Your task to perform on an android device: toggle location history Image 0: 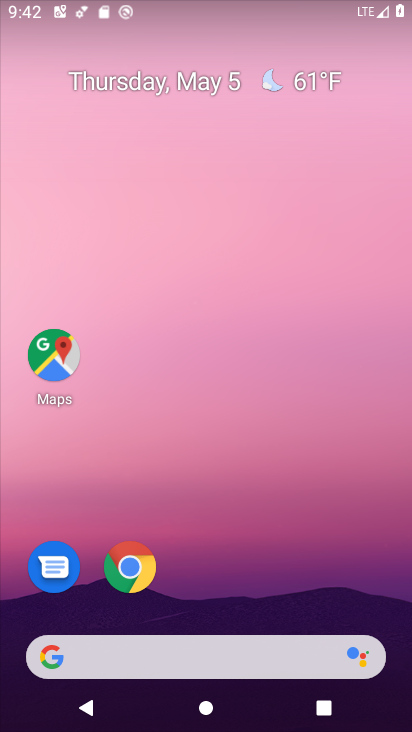
Step 0: drag from (286, 581) to (265, 132)
Your task to perform on an android device: toggle location history Image 1: 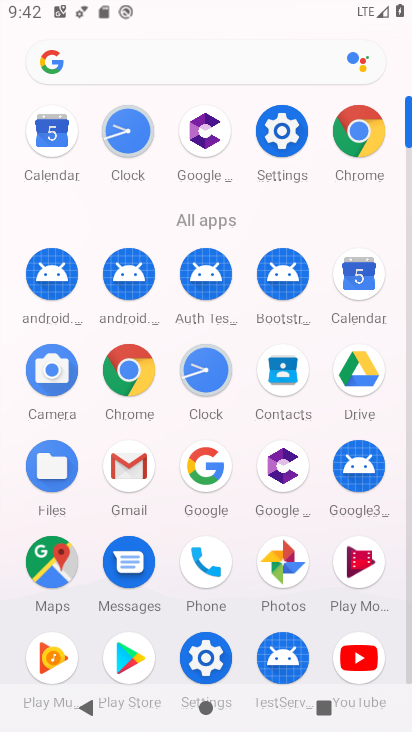
Step 1: click (282, 129)
Your task to perform on an android device: toggle location history Image 2: 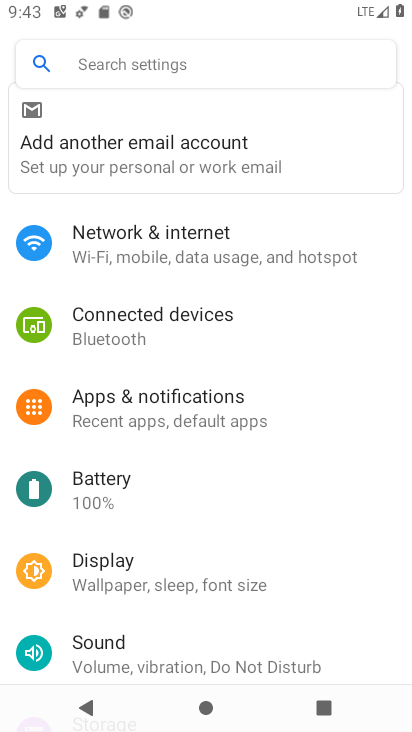
Step 2: drag from (209, 597) to (245, 366)
Your task to perform on an android device: toggle location history Image 3: 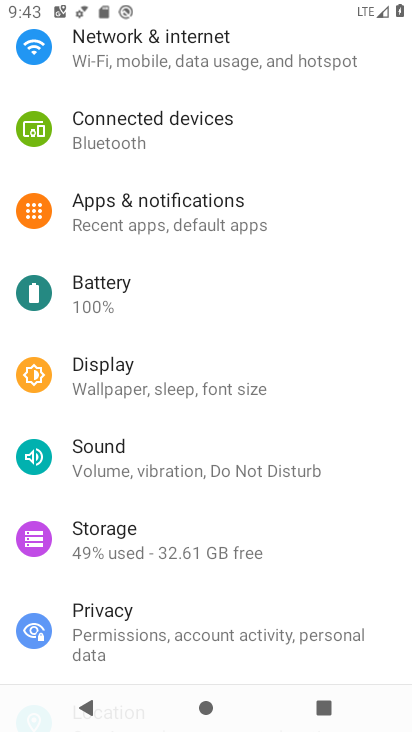
Step 3: drag from (194, 558) to (236, 310)
Your task to perform on an android device: toggle location history Image 4: 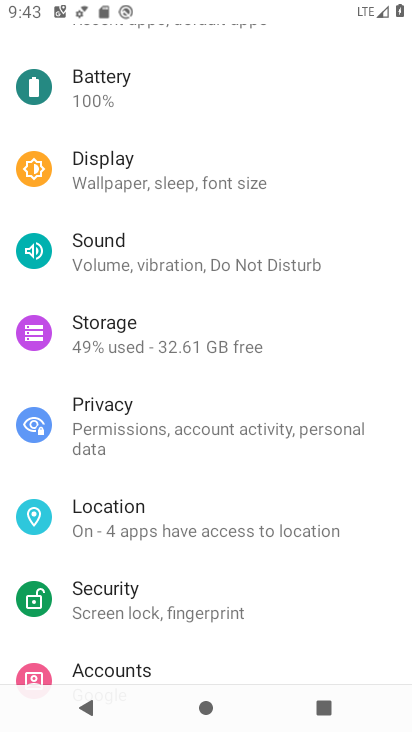
Step 4: click (203, 518)
Your task to perform on an android device: toggle location history Image 5: 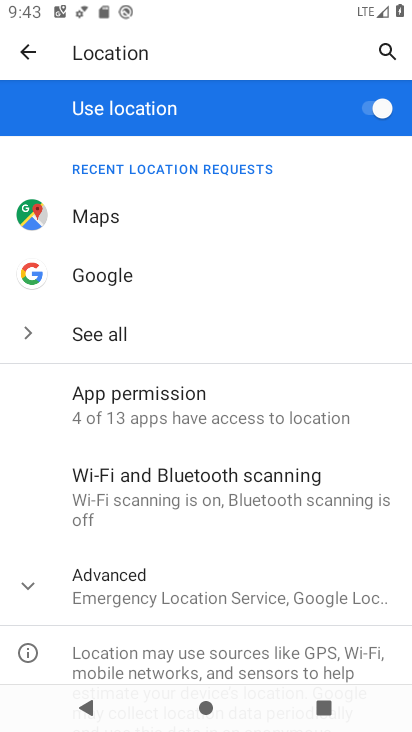
Step 5: click (239, 593)
Your task to perform on an android device: toggle location history Image 6: 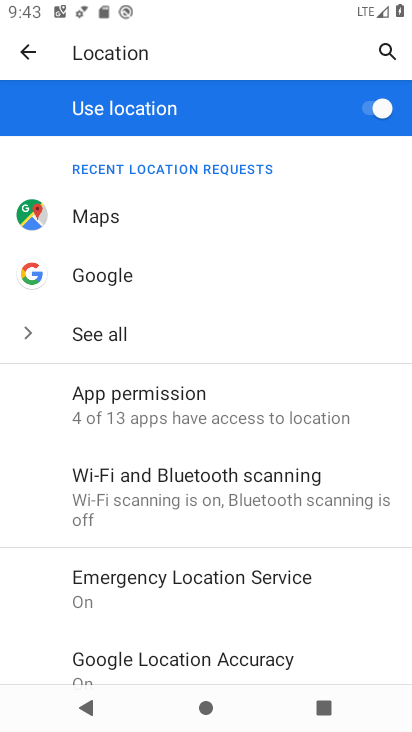
Step 6: drag from (227, 599) to (264, 293)
Your task to perform on an android device: toggle location history Image 7: 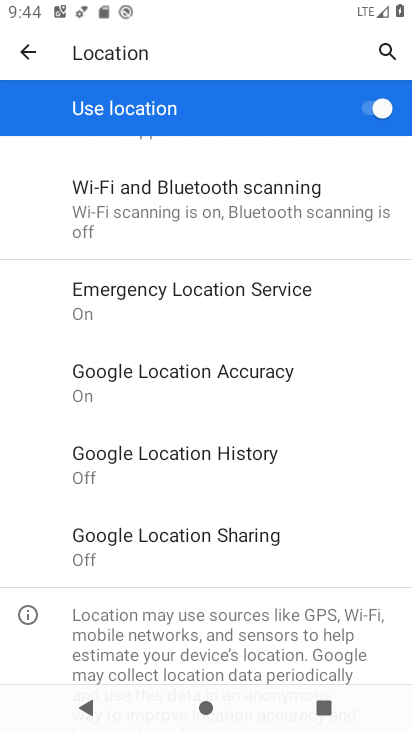
Step 7: click (220, 454)
Your task to perform on an android device: toggle location history Image 8: 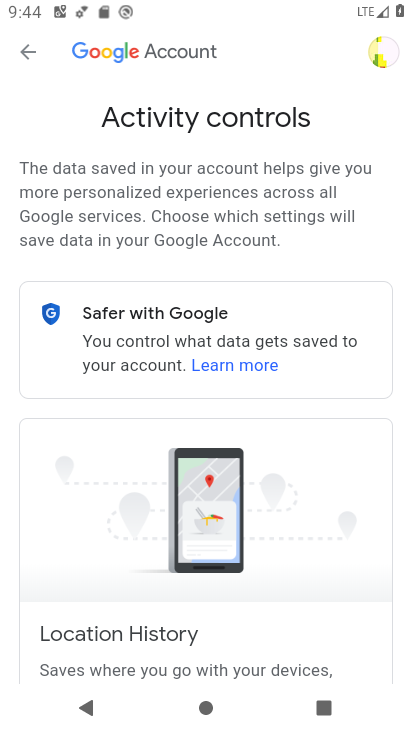
Step 8: drag from (308, 537) to (308, 247)
Your task to perform on an android device: toggle location history Image 9: 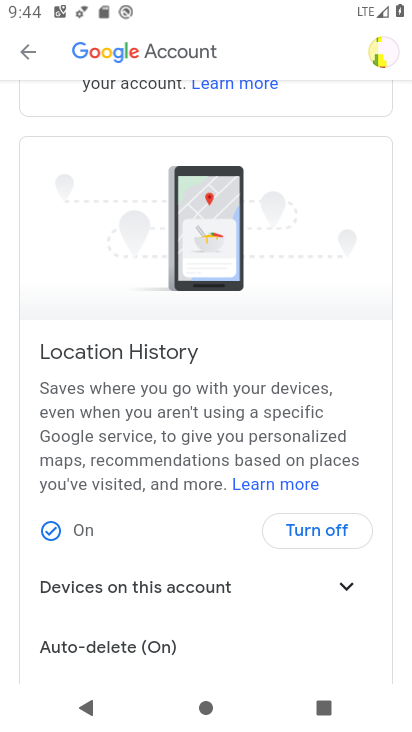
Step 9: click (319, 527)
Your task to perform on an android device: toggle location history Image 10: 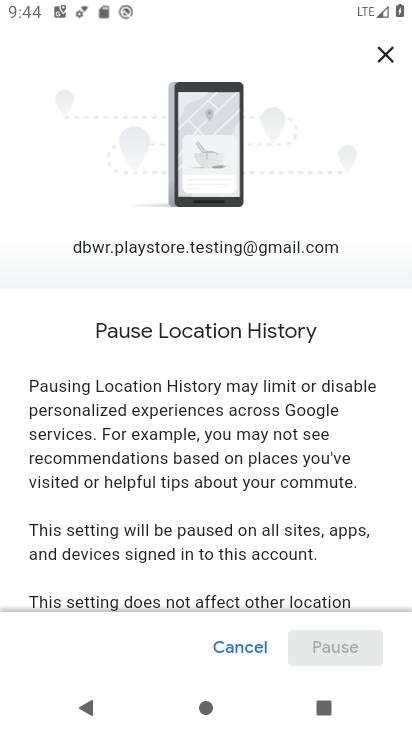
Step 10: drag from (318, 575) to (345, 245)
Your task to perform on an android device: toggle location history Image 11: 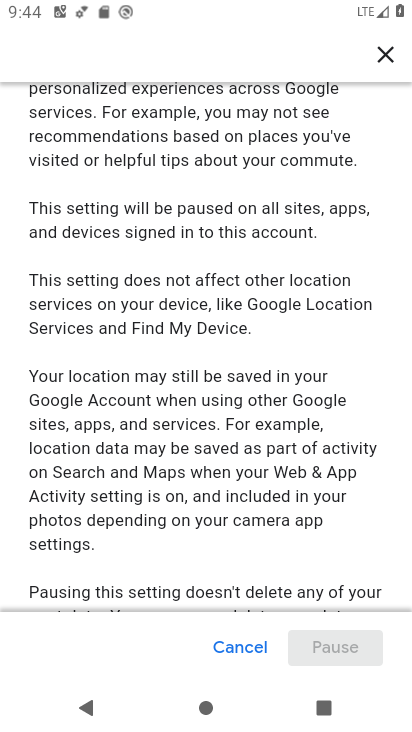
Step 11: drag from (282, 534) to (302, 179)
Your task to perform on an android device: toggle location history Image 12: 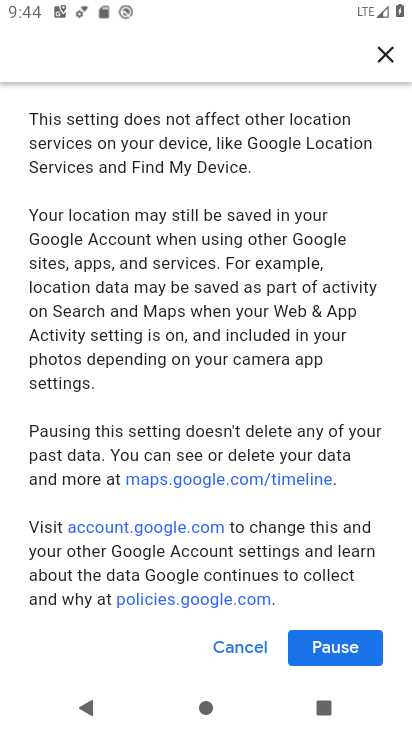
Step 12: click (355, 642)
Your task to perform on an android device: toggle location history Image 13: 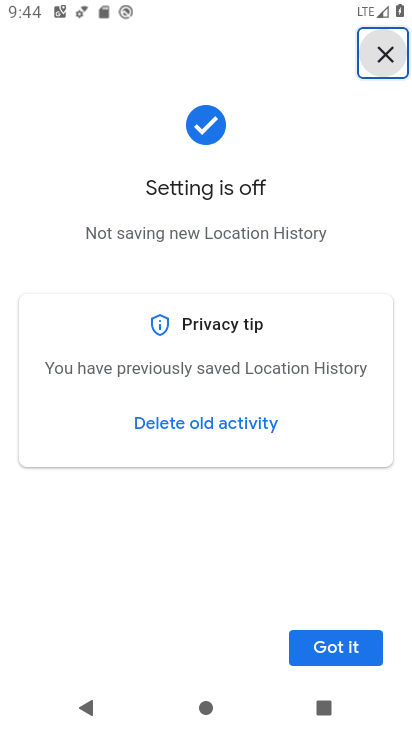
Step 13: click (349, 655)
Your task to perform on an android device: toggle location history Image 14: 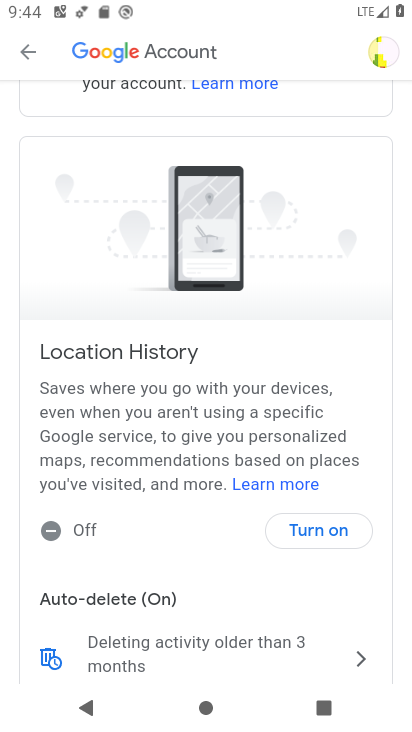
Step 14: task complete